Your task to perform on an android device: turn on location history Image 0: 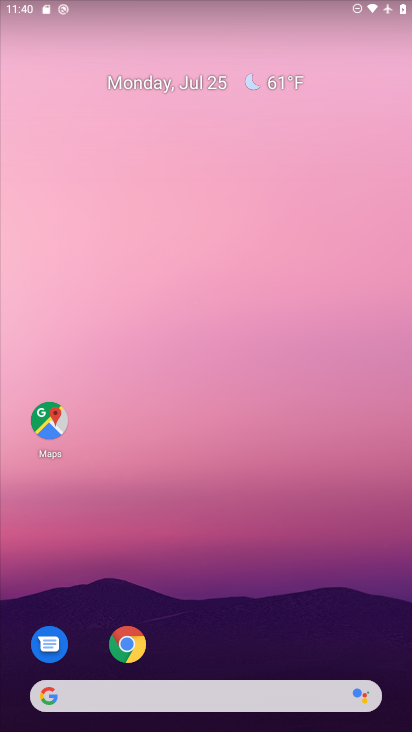
Step 0: drag from (226, 567) to (242, 176)
Your task to perform on an android device: turn on location history Image 1: 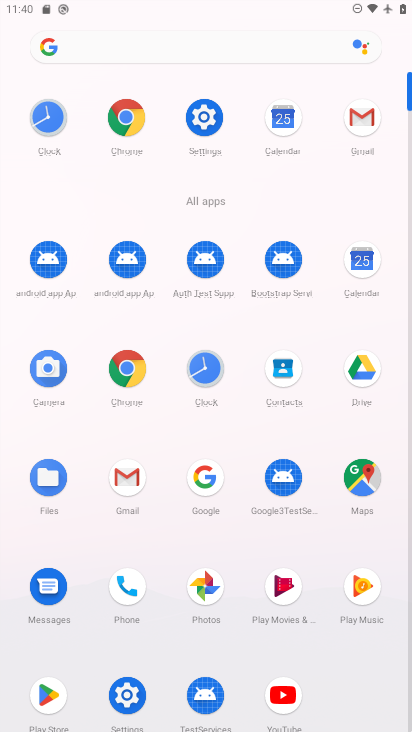
Step 1: click (194, 113)
Your task to perform on an android device: turn on location history Image 2: 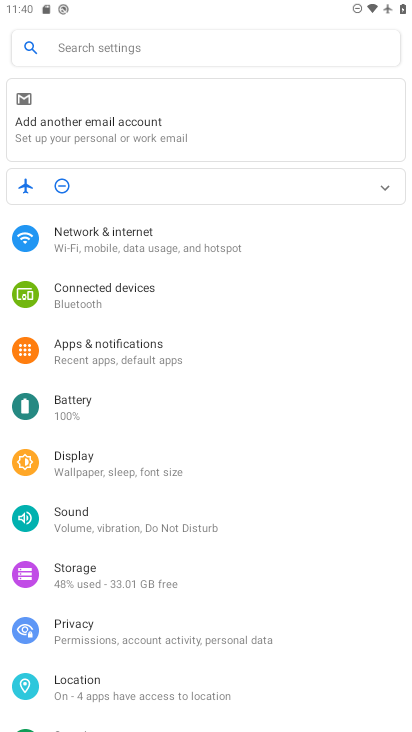
Step 2: click (111, 690)
Your task to perform on an android device: turn on location history Image 3: 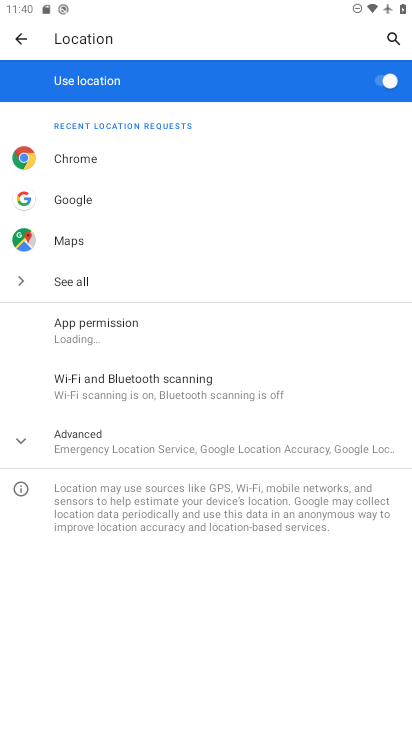
Step 3: click (132, 441)
Your task to perform on an android device: turn on location history Image 4: 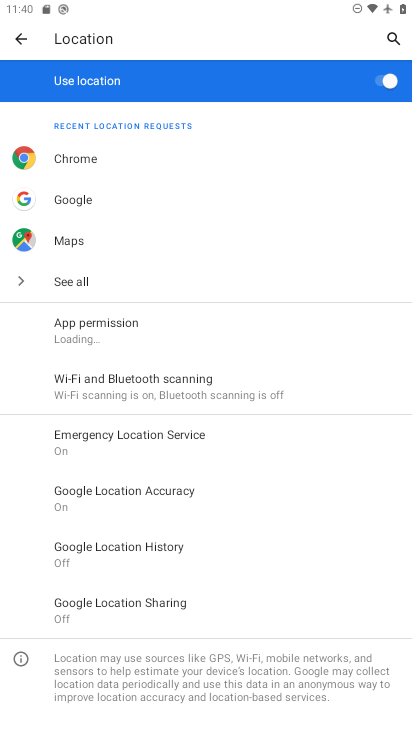
Step 4: click (138, 548)
Your task to perform on an android device: turn on location history Image 5: 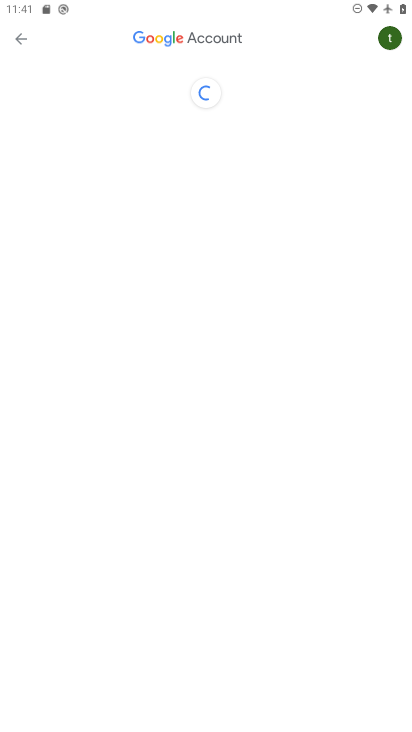
Step 5: drag from (155, 611) to (179, 369)
Your task to perform on an android device: turn on location history Image 6: 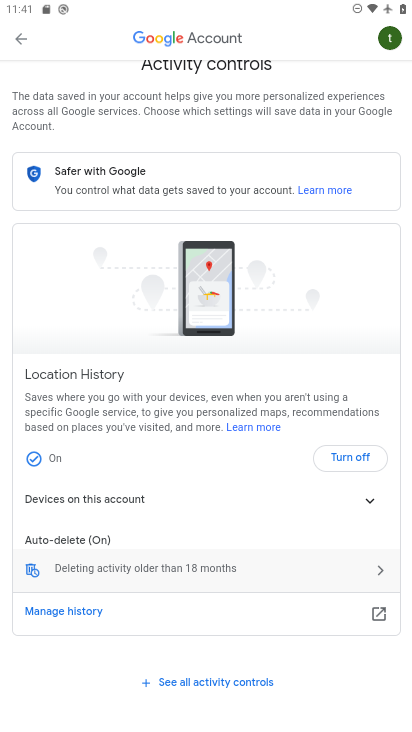
Step 6: click (23, 445)
Your task to perform on an android device: turn on location history Image 7: 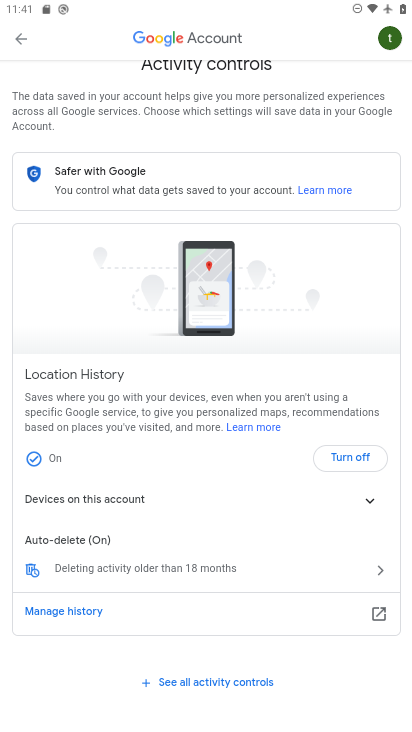
Step 7: click (36, 458)
Your task to perform on an android device: turn on location history Image 8: 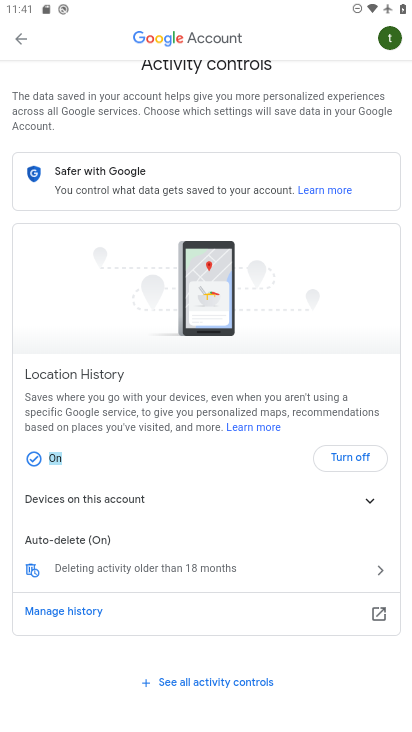
Step 8: click (36, 458)
Your task to perform on an android device: turn on location history Image 9: 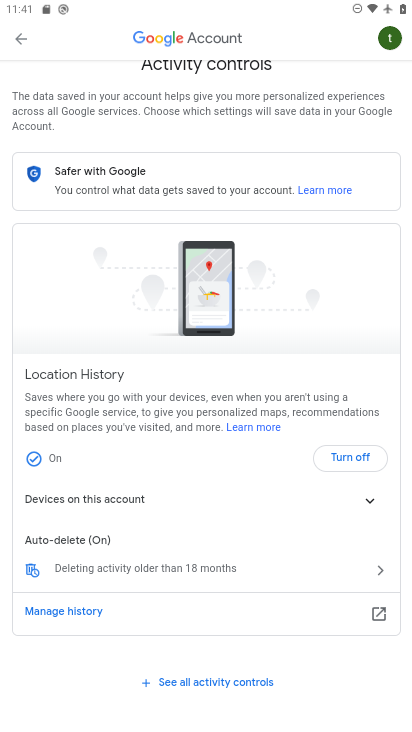
Step 9: click (56, 455)
Your task to perform on an android device: turn on location history Image 10: 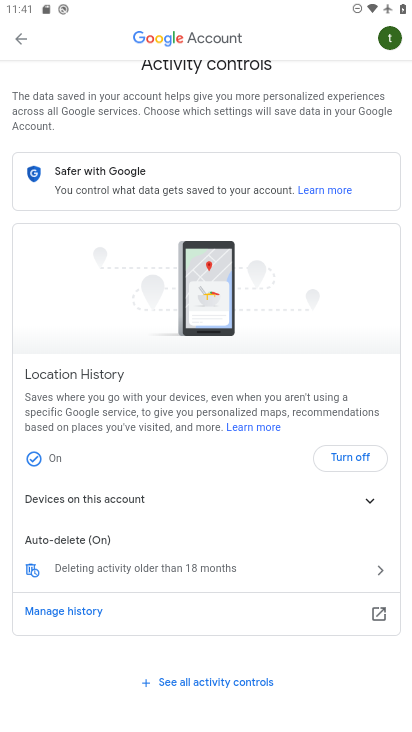
Step 10: click (56, 455)
Your task to perform on an android device: turn on location history Image 11: 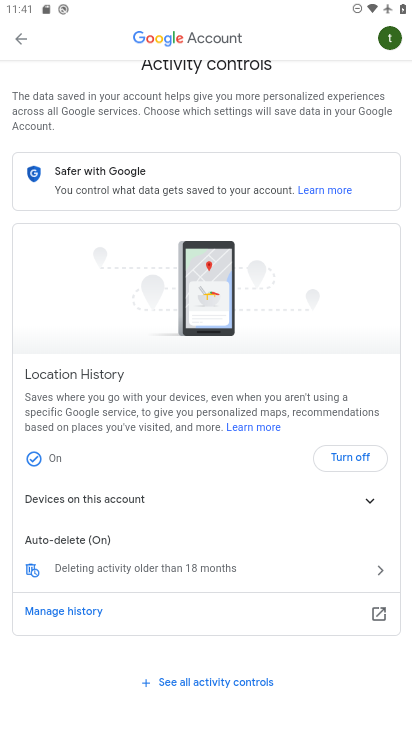
Step 11: click (46, 455)
Your task to perform on an android device: turn on location history Image 12: 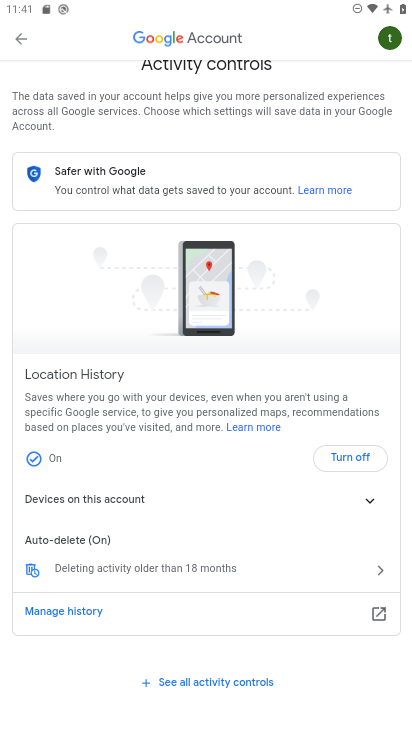
Step 12: click (34, 453)
Your task to perform on an android device: turn on location history Image 13: 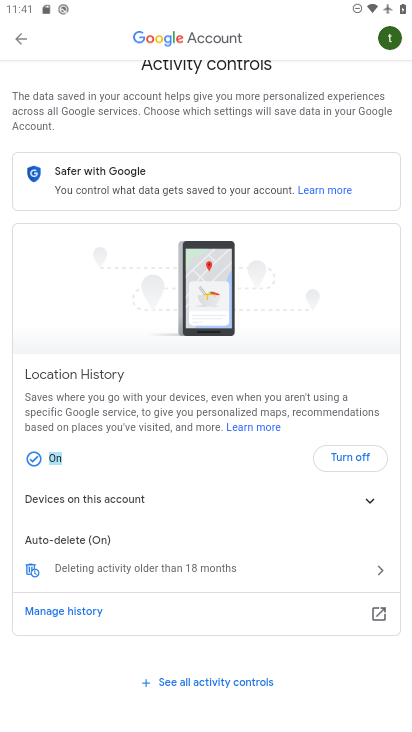
Step 13: click (32, 453)
Your task to perform on an android device: turn on location history Image 14: 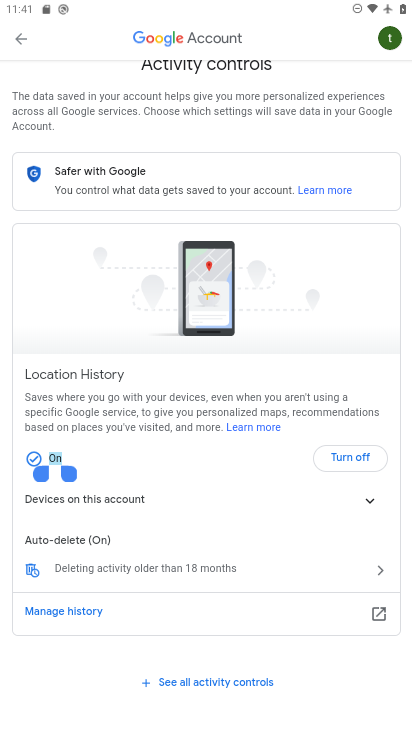
Step 14: click (32, 453)
Your task to perform on an android device: turn on location history Image 15: 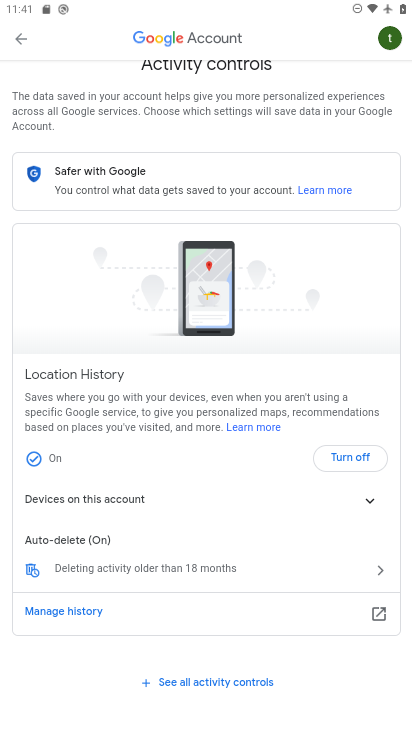
Step 15: click (32, 453)
Your task to perform on an android device: turn on location history Image 16: 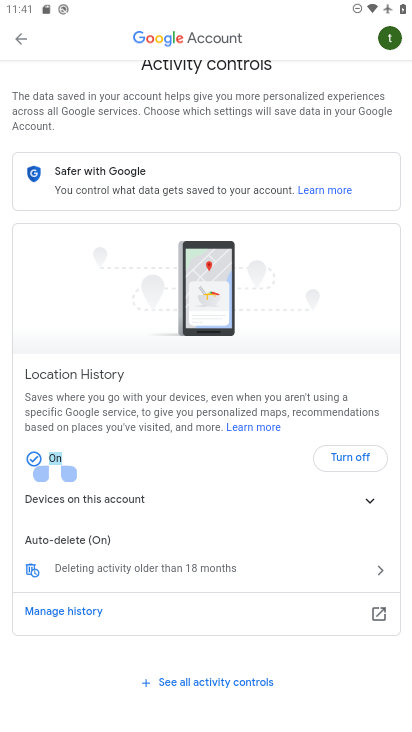
Step 16: click (32, 453)
Your task to perform on an android device: turn on location history Image 17: 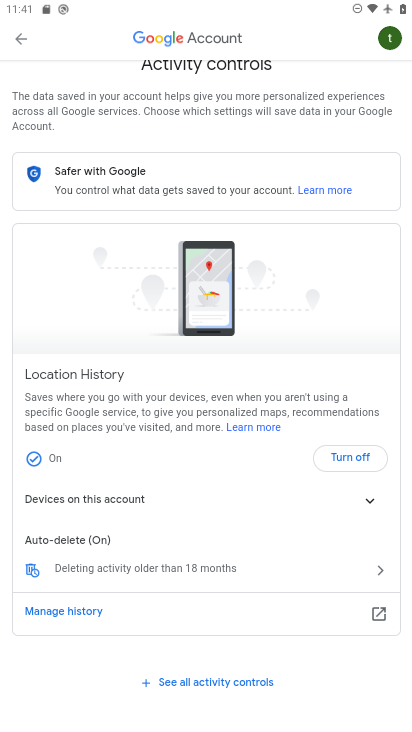
Step 17: click (362, 451)
Your task to perform on an android device: turn on location history Image 18: 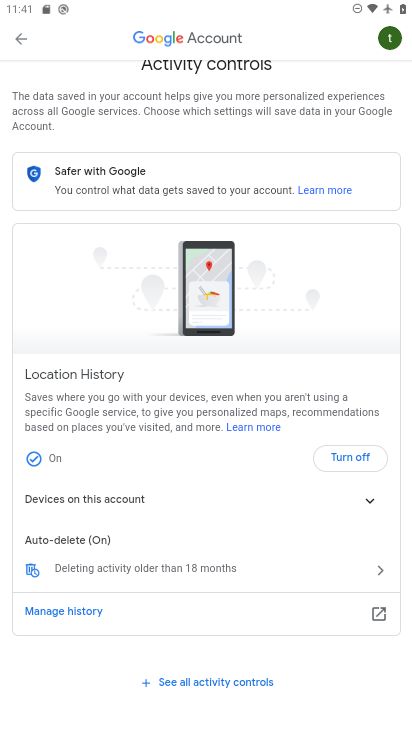
Step 18: click (362, 451)
Your task to perform on an android device: turn on location history Image 19: 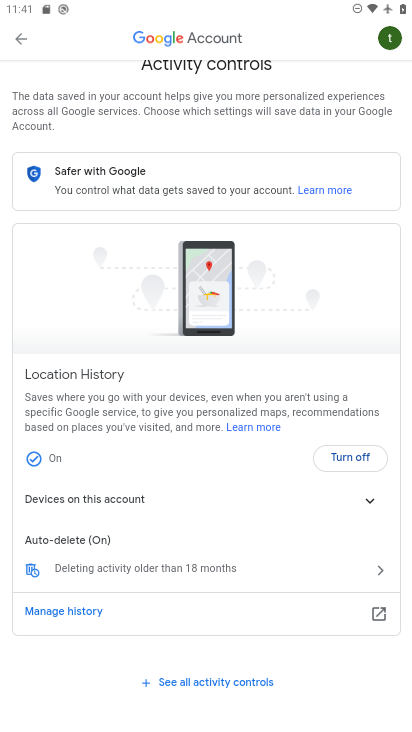
Step 19: click (362, 451)
Your task to perform on an android device: turn on location history Image 20: 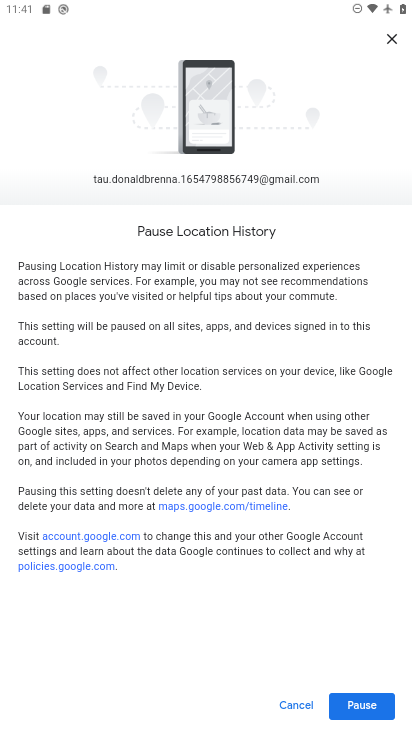
Step 20: click (353, 708)
Your task to perform on an android device: turn on location history Image 21: 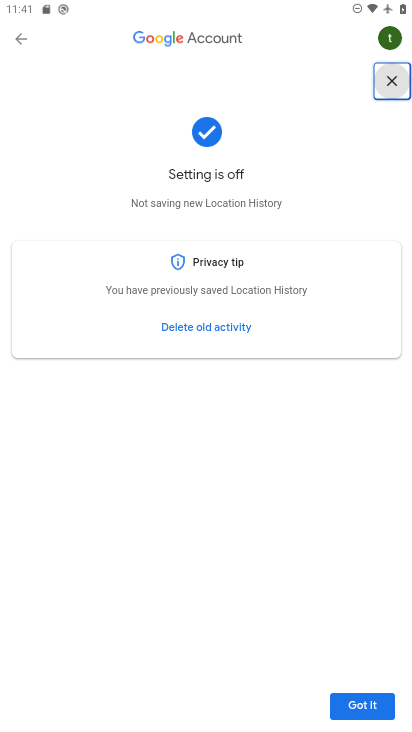
Step 21: click (399, 79)
Your task to perform on an android device: turn on location history Image 22: 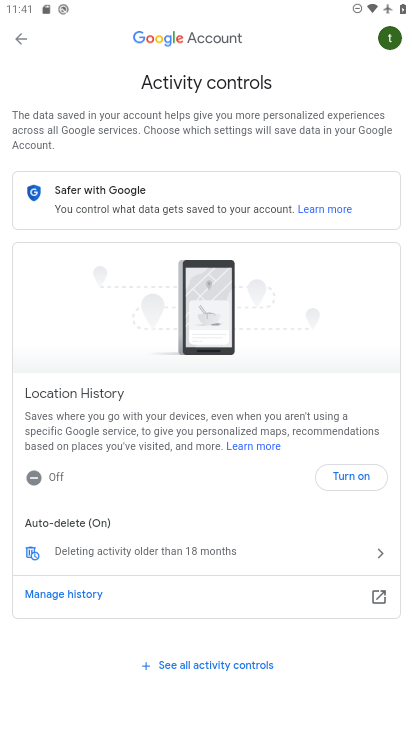
Step 22: task complete